Your task to perform on an android device: Open Yahoo.com Image 0: 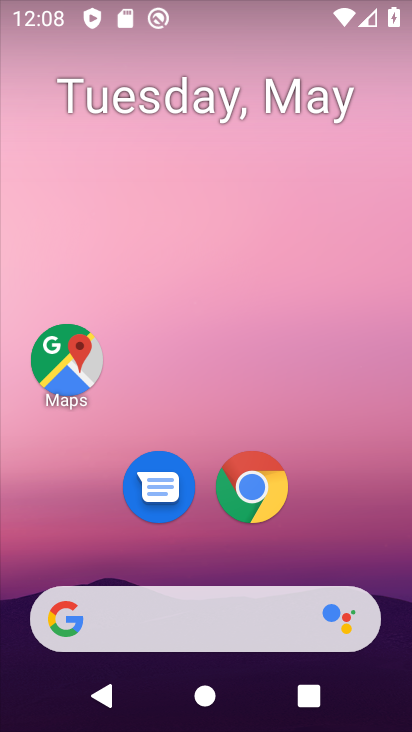
Step 0: drag from (334, 515) to (242, 12)
Your task to perform on an android device: Open Yahoo.com Image 1: 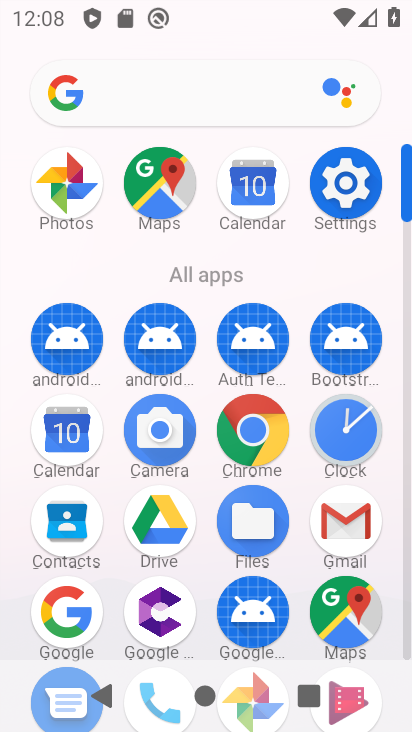
Step 1: drag from (13, 547) to (3, 227)
Your task to perform on an android device: Open Yahoo.com Image 2: 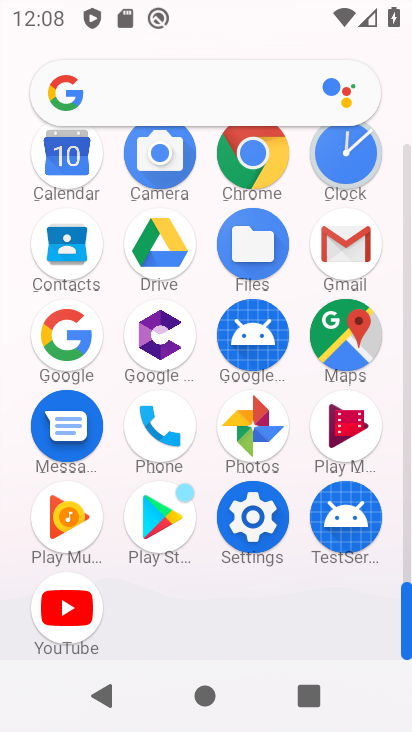
Step 2: click (253, 147)
Your task to perform on an android device: Open Yahoo.com Image 3: 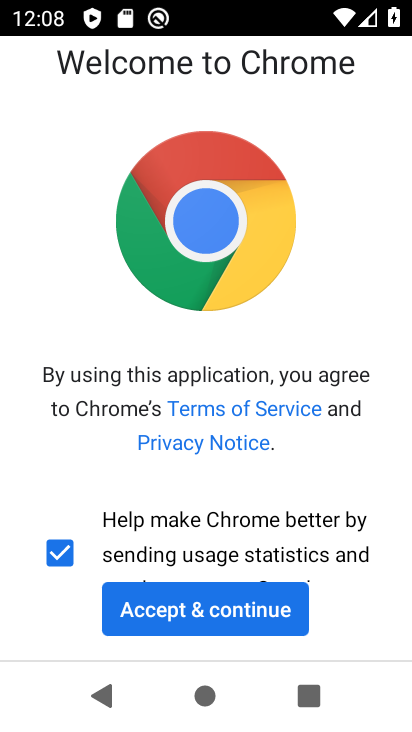
Step 3: click (196, 607)
Your task to perform on an android device: Open Yahoo.com Image 4: 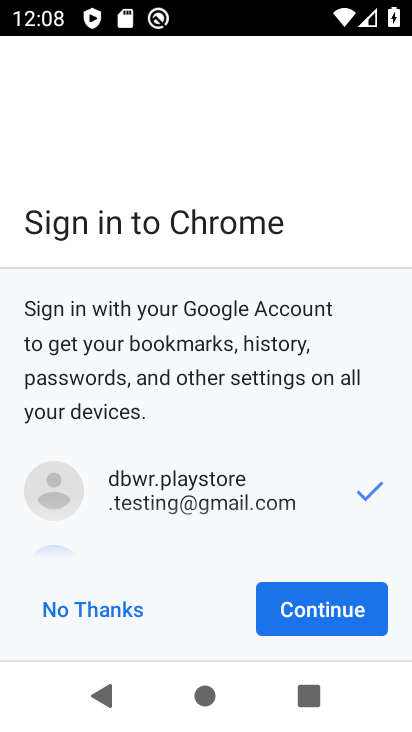
Step 4: click (317, 609)
Your task to perform on an android device: Open Yahoo.com Image 5: 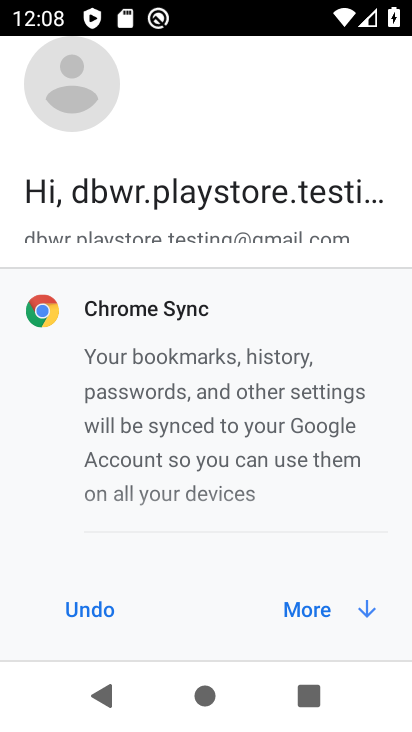
Step 5: click (310, 610)
Your task to perform on an android device: Open Yahoo.com Image 6: 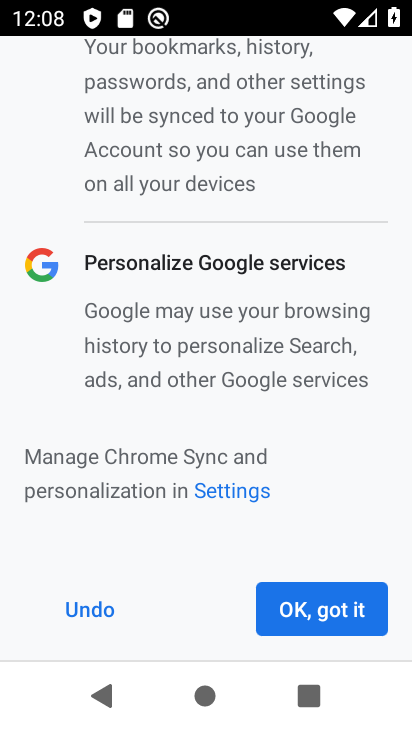
Step 6: click (310, 610)
Your task to perform on an android device: Open Yahoo.com Image 7: 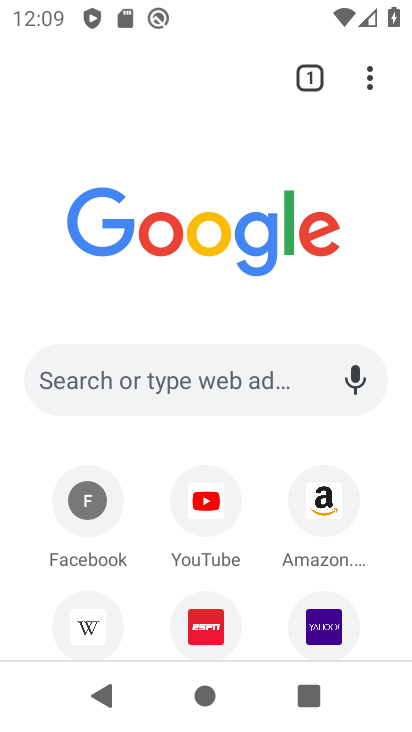
Step 7: drag from (24, 585) to (14, 407)
Your task to perform on an android device: Open Yahoo.com Image 8: 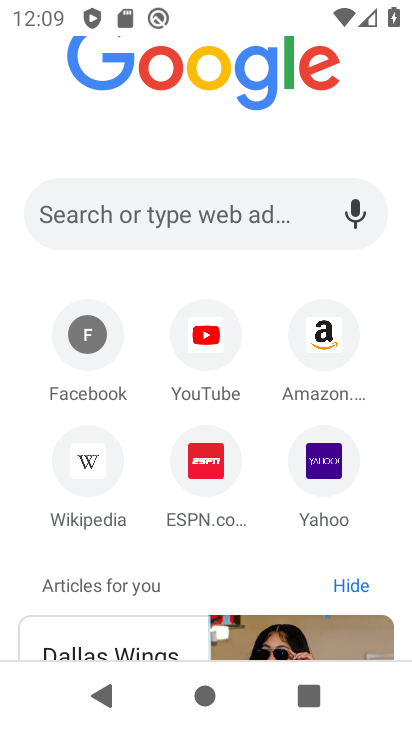
Step 8: click (335, 450)
Your task to perform on an android device: Open Yahoo.com Image 9: 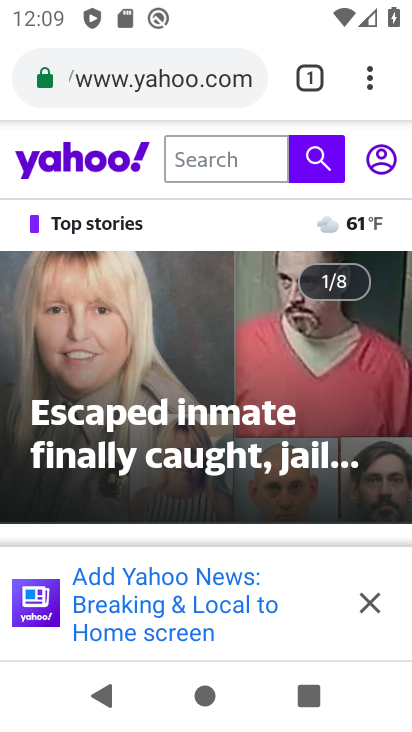
Step 9: task complete